Your task to perform on an android device: check data usage Image 0: 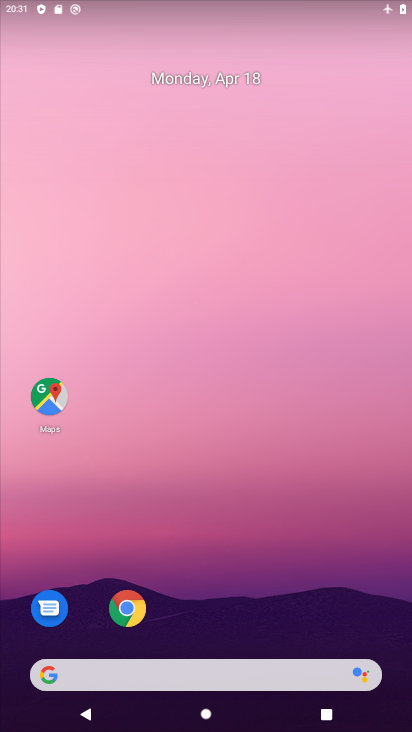
Step 0: drag from (252, 505) to (219, 162)
Your task to perform on an android device: check data usage Image 1: 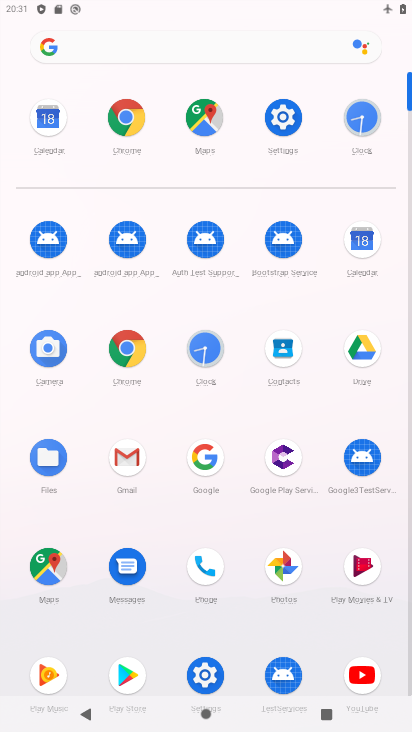
Step 1: click (287, 113)
Your task to perform on an android device: check data usage Image 2: 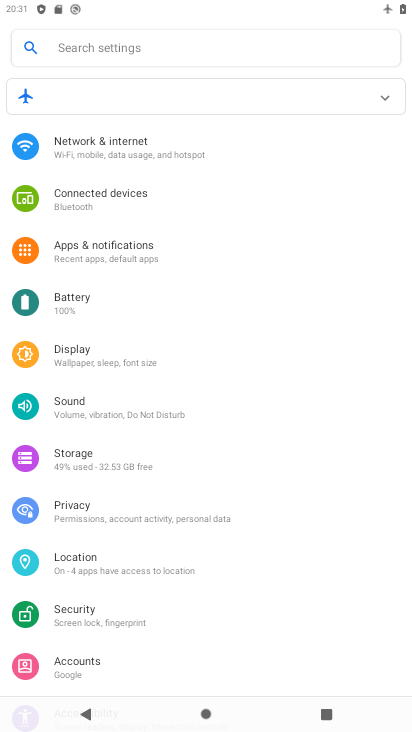
Step 2: click (115, 147)
Your task to perform on an android device: check data usage Image 3: 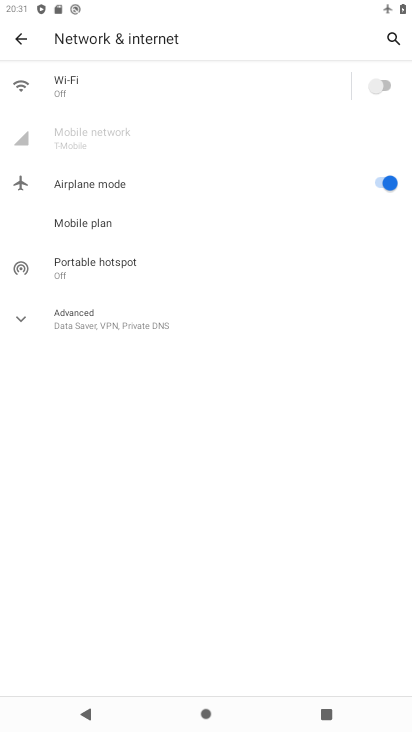
Step 3: task complete